Your task to perform on an android device: find photos in the google photos app Image 0: 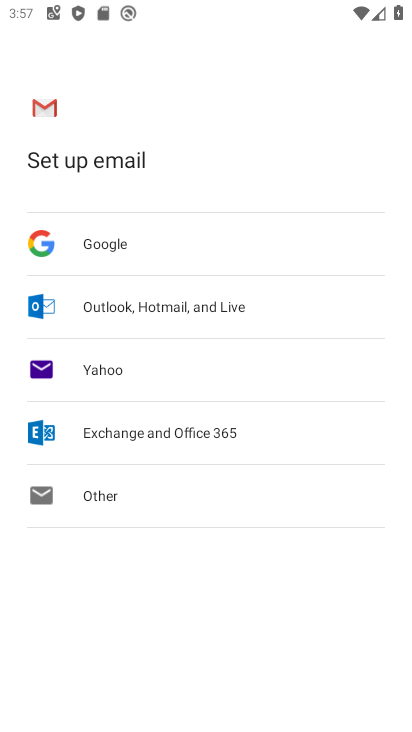
Step 0: press home button
Your task to perform on an android device: find photos in the google photos app Image 1: 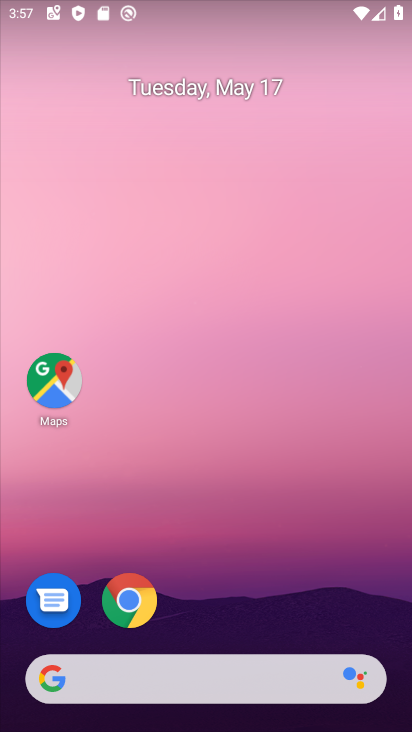
Step 1: drag from (203, 414) to (254, 29)
Your task to perform on an android device: find photos in the google photos app Image 2: 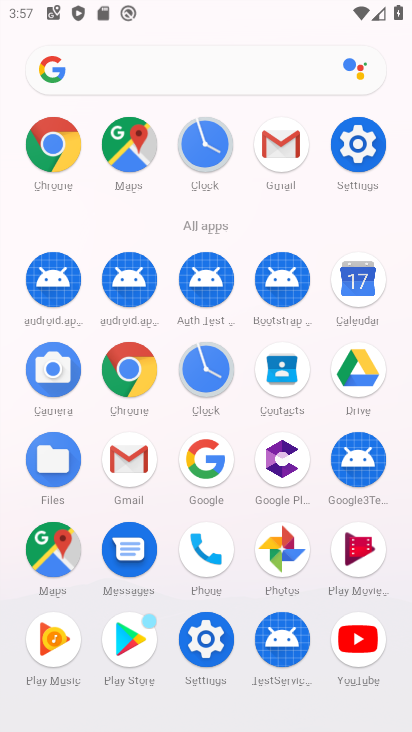
Step 2: click (290, 575)
Your task to perform on an android device: find photos in the google photos app Image 3: 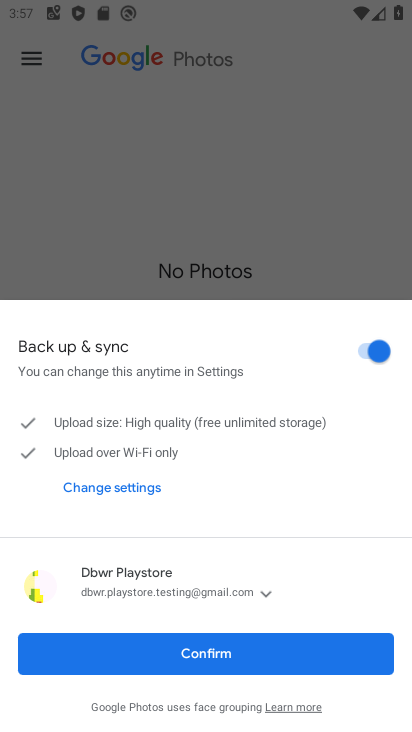
Step 3: click (266, 648)
Your task to perform on an android device: find photos in the google photos app Image 4: 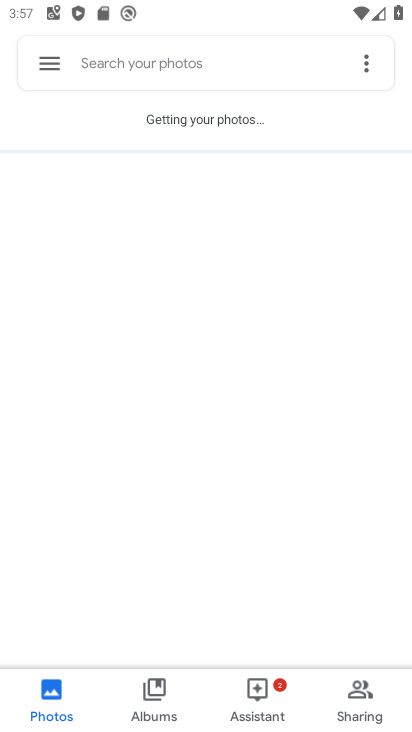
Step 4: drag from (200, 265) to (205, 420)
Your task to perform on an android device: find photos in the google photos app Image 5: 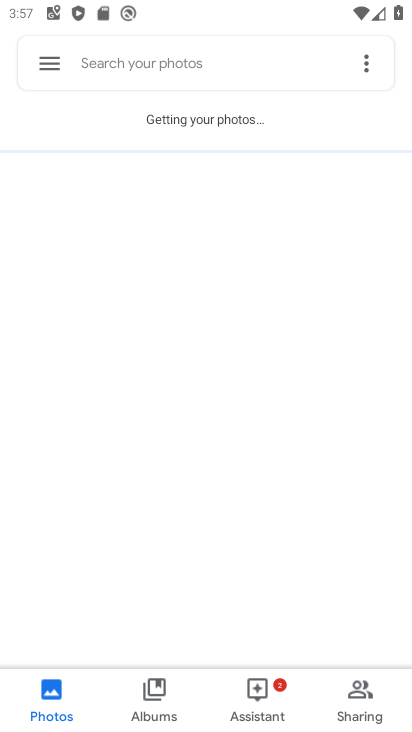
Step 5: click (54, 58)
Your task to perform on an android device: find photos in the google photos app Image 6: 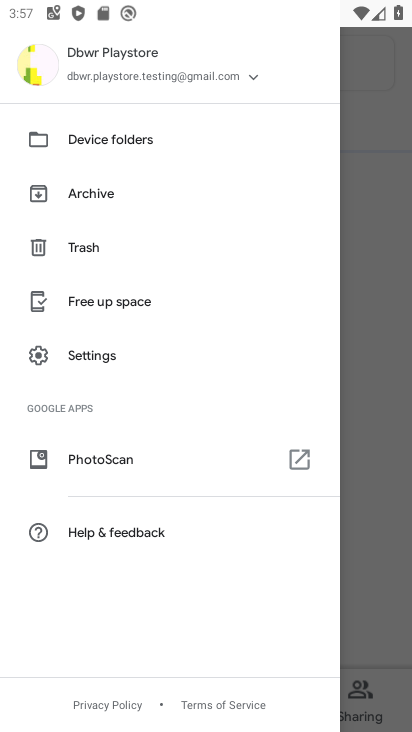
Step 6: click (383, 311)
Your task to perform on an android device: find photos in the google photos app Image 7: 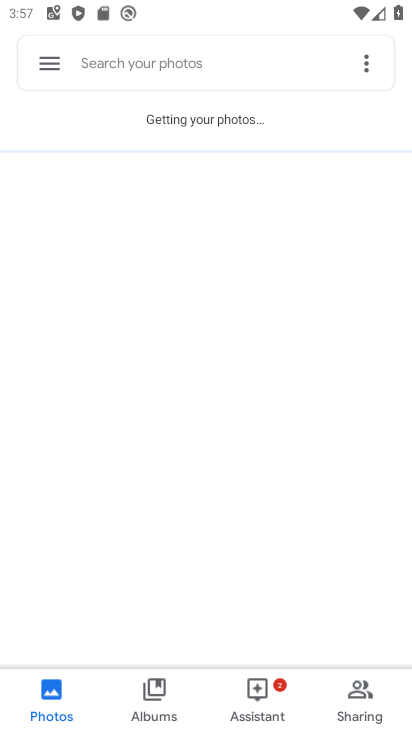
Step 7: click (365, 70)
Your task to perform on an android device: find photos in the google photos app Image 8: 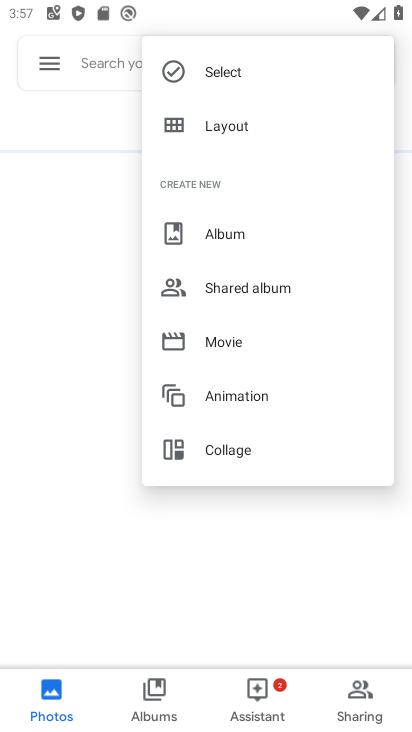
Step 8: click (215, 505)
Your task to perform on an android device: find photos in the google photos app Image 9: 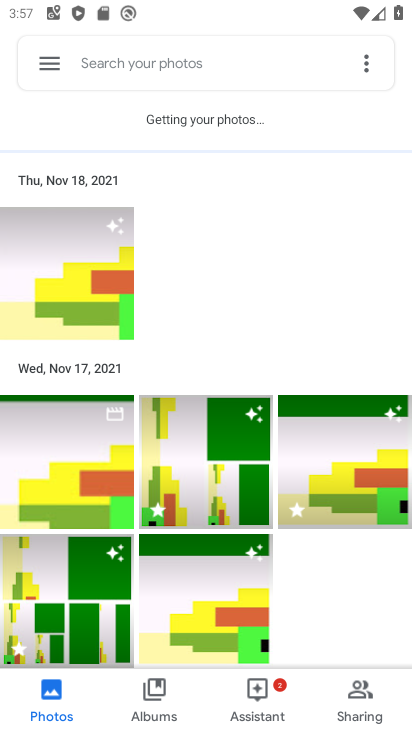
Step 9: task complete